Your task to perform on an android device: Go to Amazon Image 0: 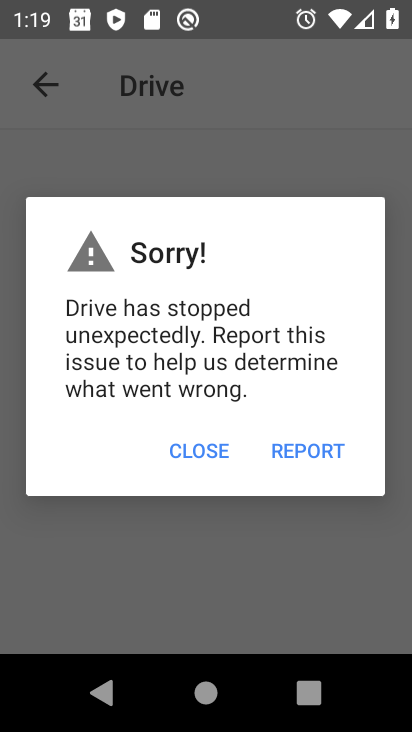
Step 0: press back button
Your task to perform on an android device: Go to Amazon Image 1: 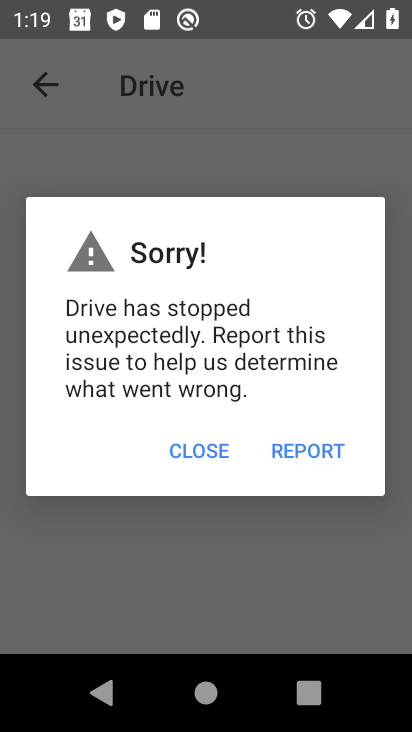
Step 1: click (197, 447)
Your task to perform on an android device: Go to Amazon Image 2: 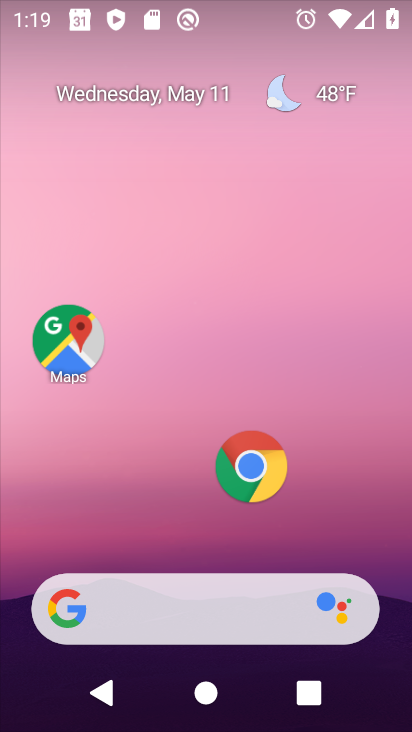
Step 2: click (254, 476)
Your task to perform on an android device: Go to Amazon Image 3: 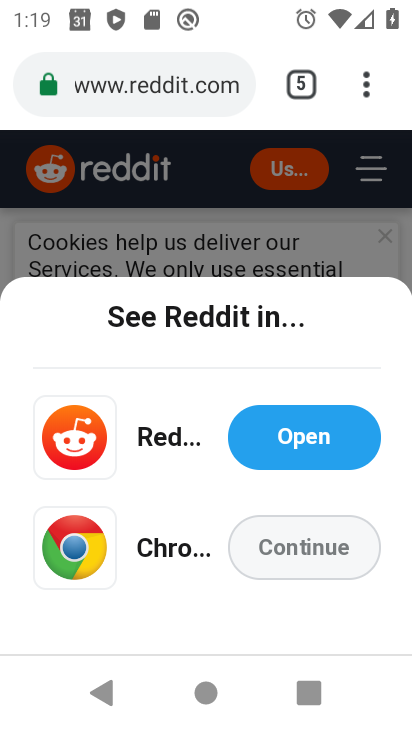
Step 3: click (301, 88)
Your task to perform on an android device: Go to Amazon Image 4: 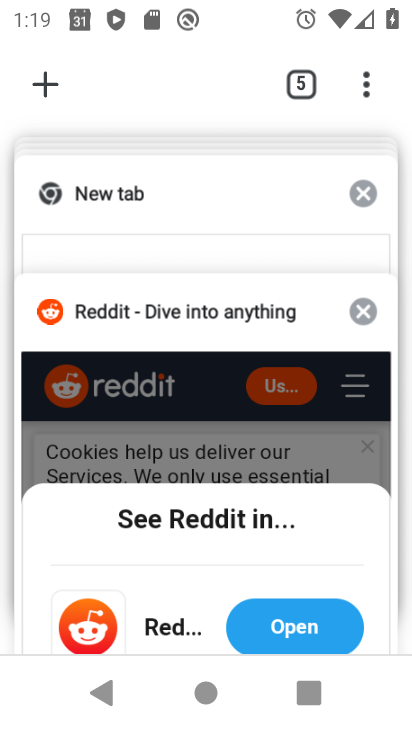
Step 4: click (79, 217)
Your task to perform on an android device: Go to Amazon Image 5: 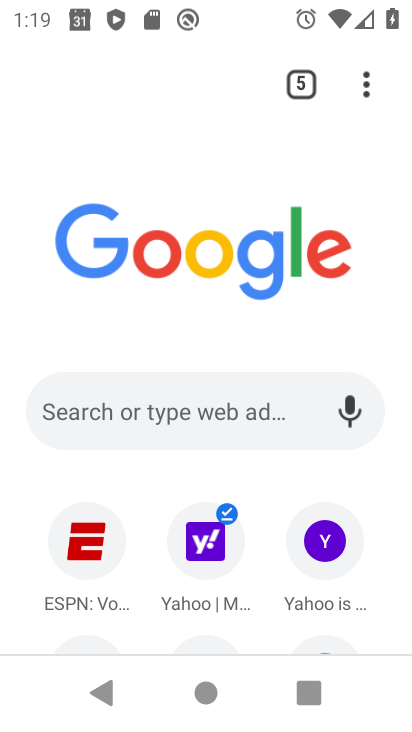
Step 5: drag from (267, 555) to (336, 112)
Your task to perform on an android device: Go to Amazon Image 6: 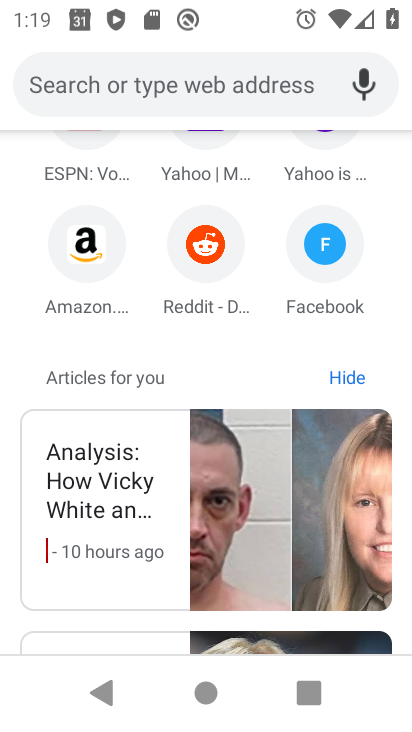
Step 6: click (94, 262)
Your task to perform on an android device: Go to Amazon Image 7: 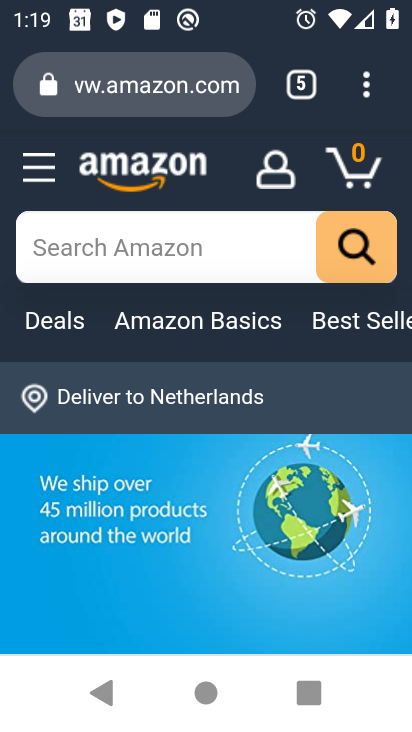
Step 7: task complete